Your task to perform on an android device: Open the Play Movies app and select the watchlist tab. Image 0: 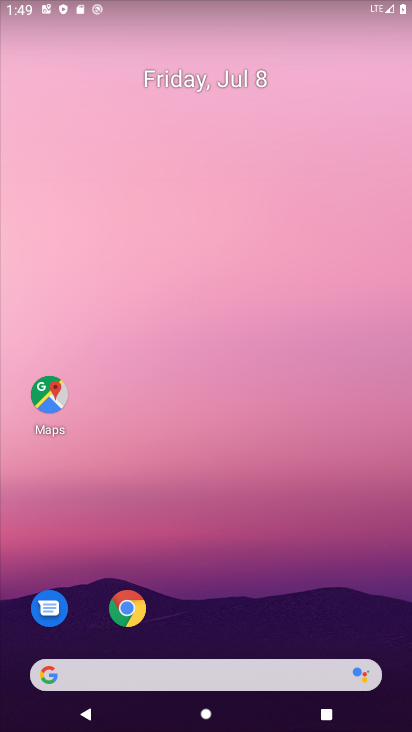
Step 0: drag from (386, 634) to (374, 80)
Your task to perform on an android device: Open the Play Movies app and select the watchlist tab. Image 1: 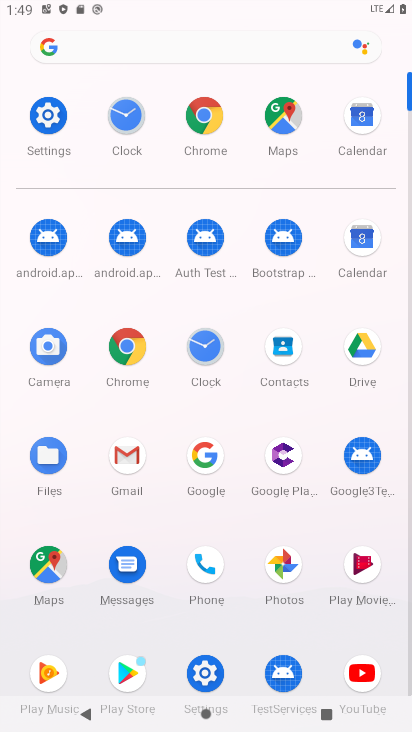
Step 1: click (363, 560)
Your task to perform on an android device: Open the Play Movies app and select the watchlist tab. Image 2: 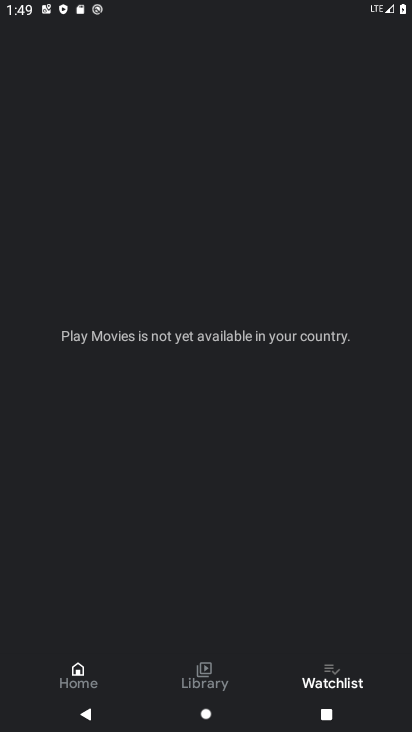
Step 2: click (328, 673)
Your task to perform on an android device: Open the Play Movies app and select the watchlist tab. Image 3: 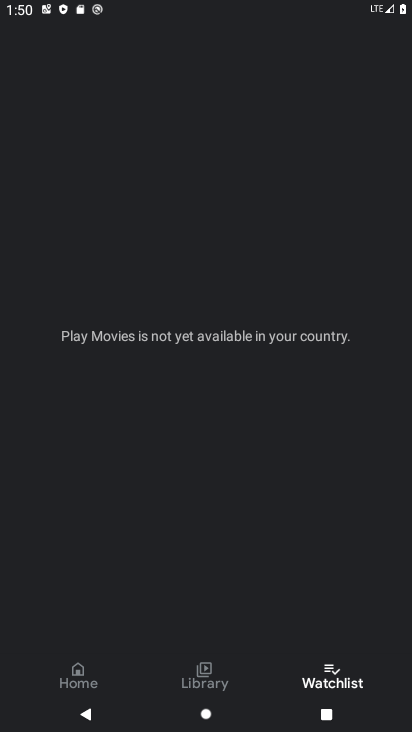
Step 3: task complete